Your task to perform on an android device: Search for a coffee table on IKEA Image 0: 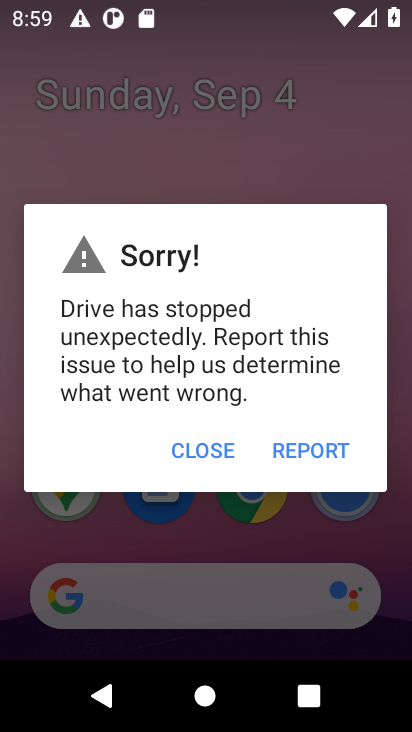
Step 0: click (211, 468)
Your task to perform on an android device: Search for a coffee table on IKEA Image 1: 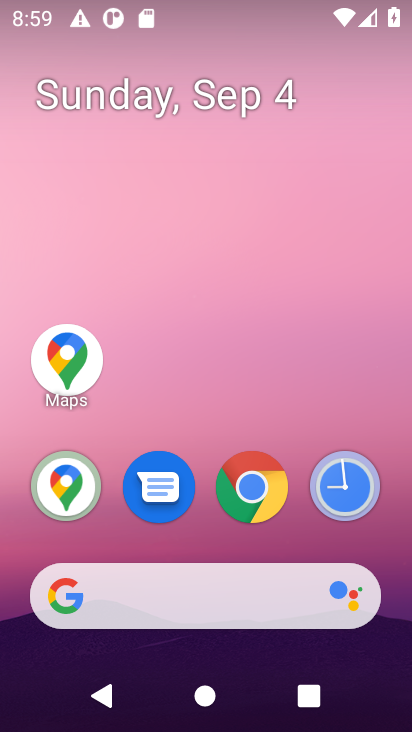
Step 1: click (247, 472)
Your task to perform on an android device: Search for a coffee table on IKEA Image 2: 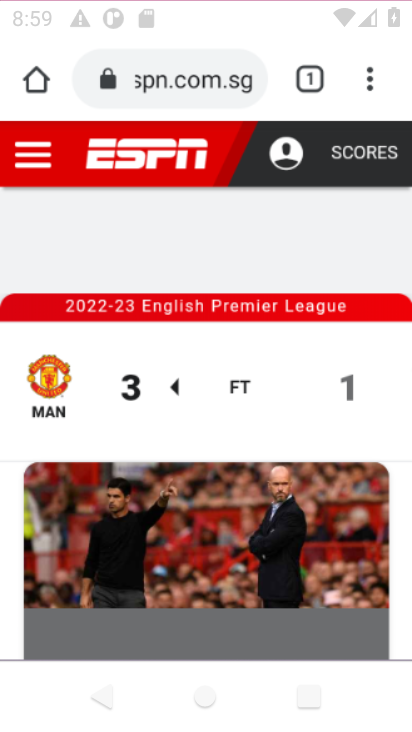
Step 2: task complete